Your task to perform on an android device: find which apps use the phone's location Image 0: 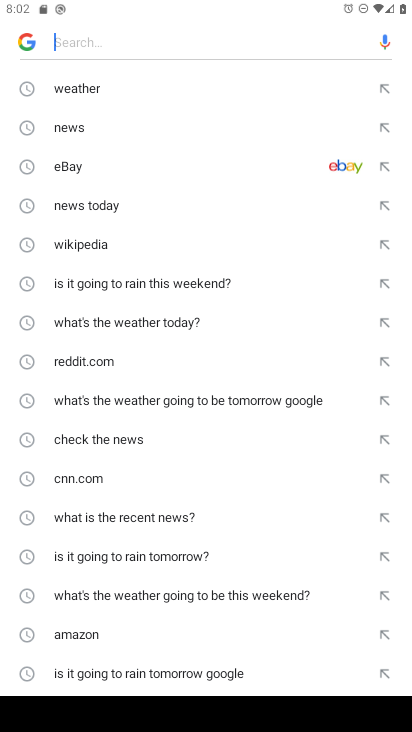
Step 0: press home button
Your task to perform on an android device: find which apps use the phone's location Image 1: 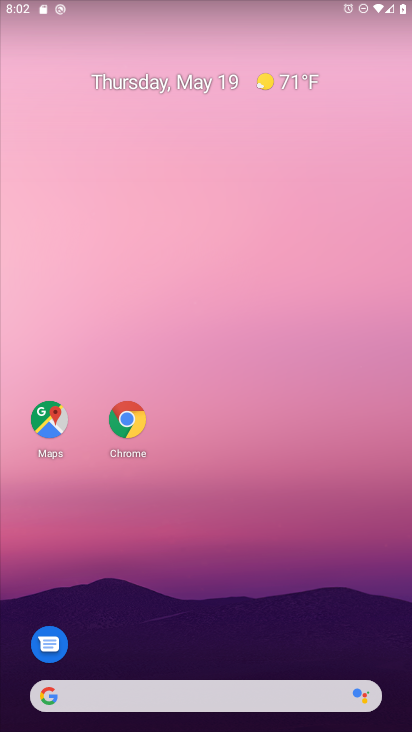
Step 1: drag from (135, 644) to (177, 294)
Your task to perform on an android device: find which apps use the phone's location Image 2: 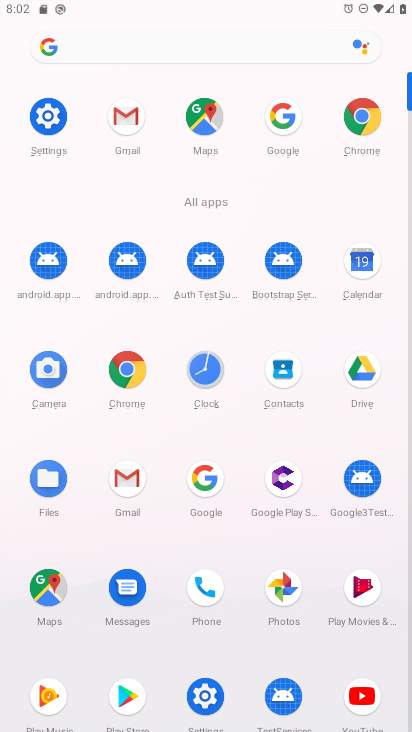
Step 2: click (200, 697)
Your task to perform on an android device: find which apps use the phone's location Image 3: 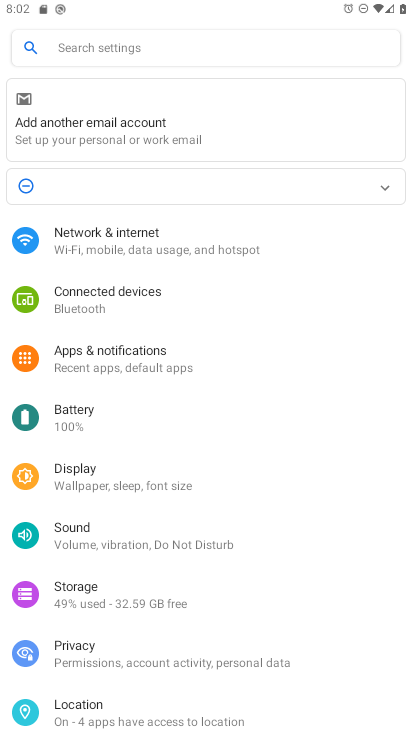
Step 3: click (127, 723)
Your task to perform on an android device: find which apps use the phone's location Image 4: 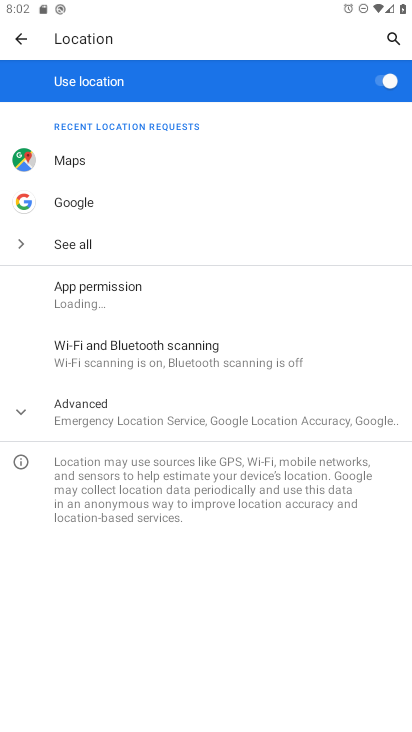
Step 4: click (69, 298)
Your task to perform on an android device: find which apps use the phone's location Image 5: 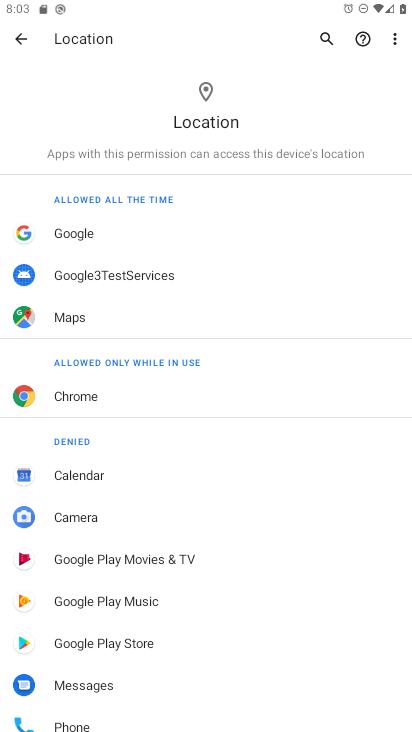
Step 5: task complete